Your task to perform on an android device: What is the recent news? Image 0: 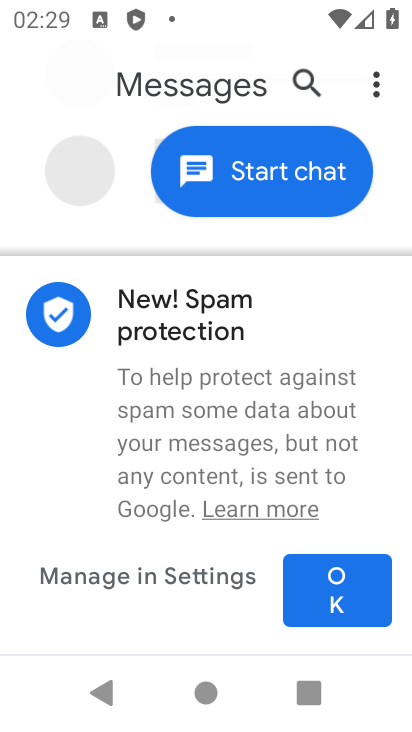
Step 0: press home button
Your task to perform on an android device: What is the recent news? Image 1: 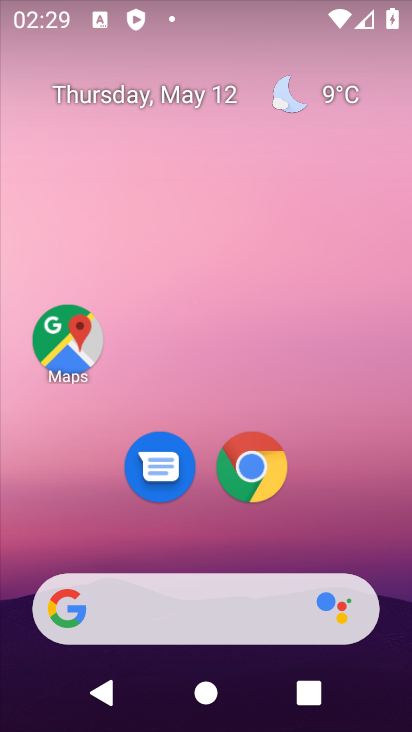
Step 1: drag from (359, 328) to (356, 243)
Your task to perform on an android device: What is the recent news? Image 2: 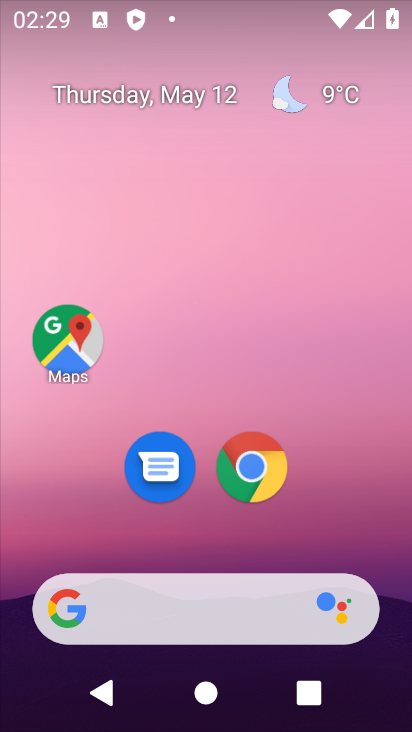
Step 2: drag from (295, 513) to (327, 191)
Your task to perform on an android device: What is the recent news? Image 3: 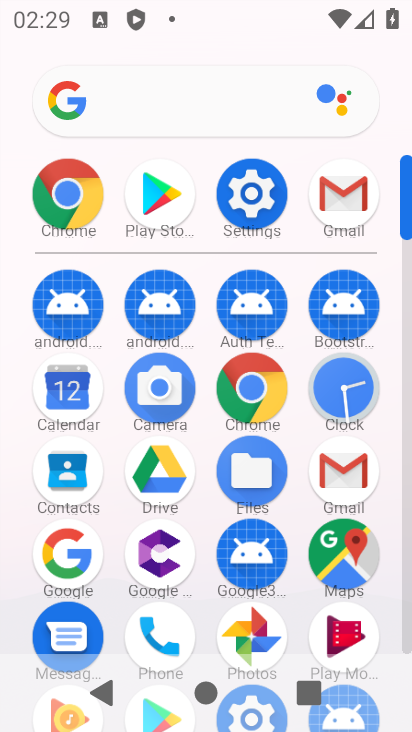
Step 3: click (91, 191)
Your task to perform on an android device: What is the recent news? Image 4: 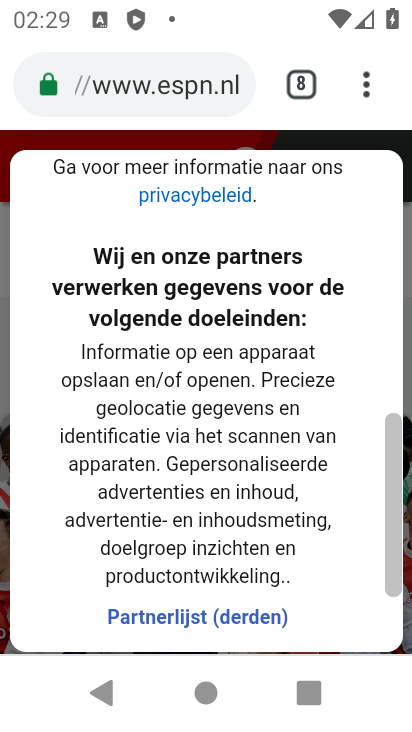
Step 4: click (351, 82)
Your task to perform on an android device: What is the recent news? Image 5: 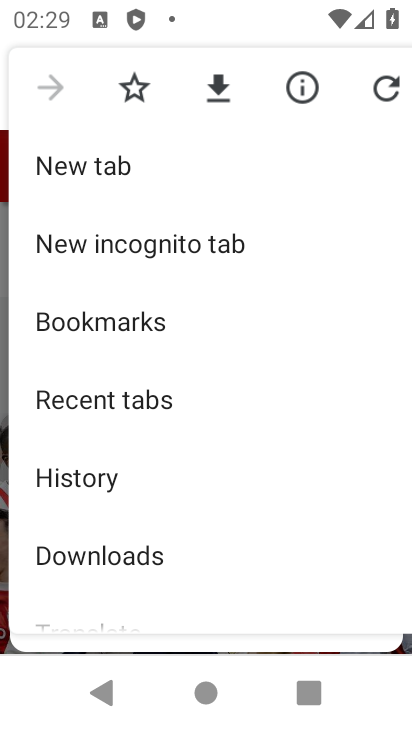
Step 5: click (99, 163)
Your task to perform on an android device: What is the recent news? Image 6: 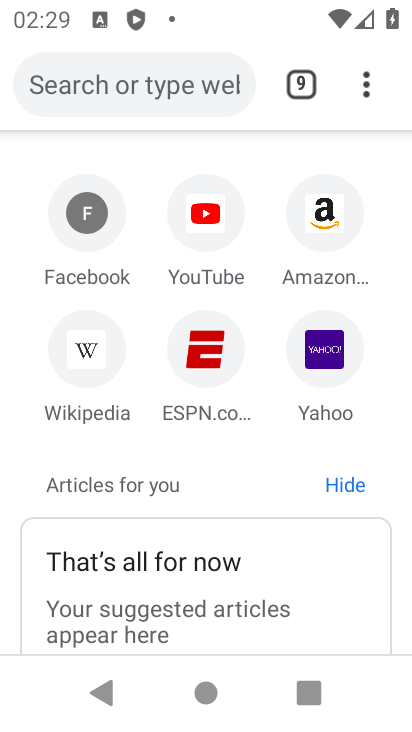
Step 6: click (133, 85)
Your task to perform on an android device: What is the recent news? Image 7: 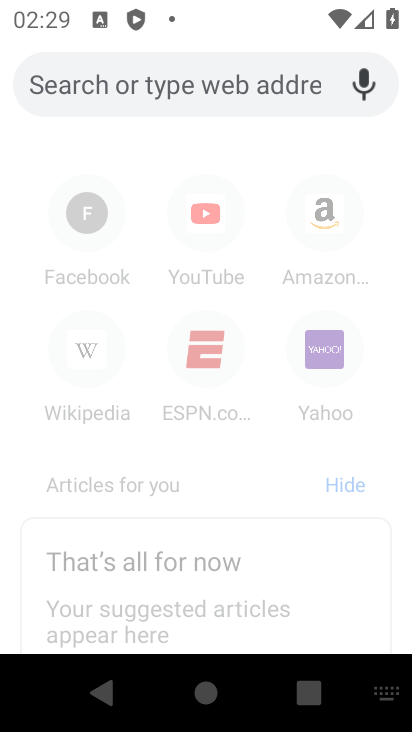
Step 7: type "What is the recent news?"
Your task to perform on an android device: What is the recent news? Image 8: 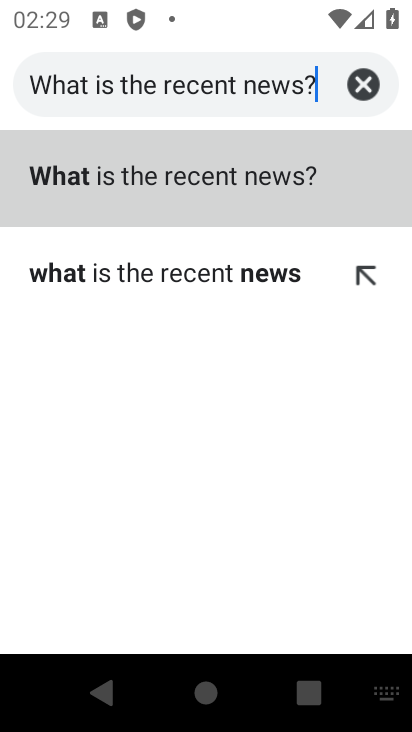
Step 8: click (201, 184)
Your task to perform on an android device: What is the recent news? Image 9: 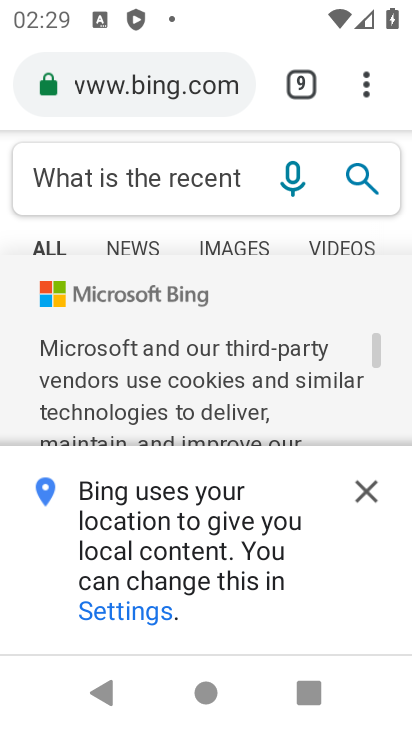
Step 9: click (353, 492)
Your task to perform on an android device: What is the recent news? Image 10: 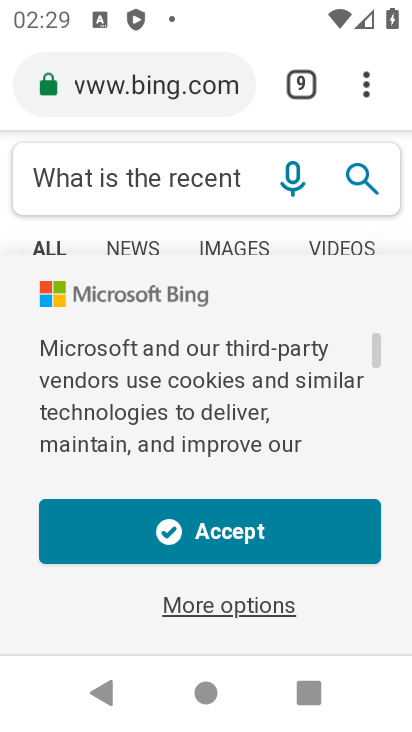
Step 10: click (268, 525)
Your task to perform on an android device: What is the recent news? Image 11: 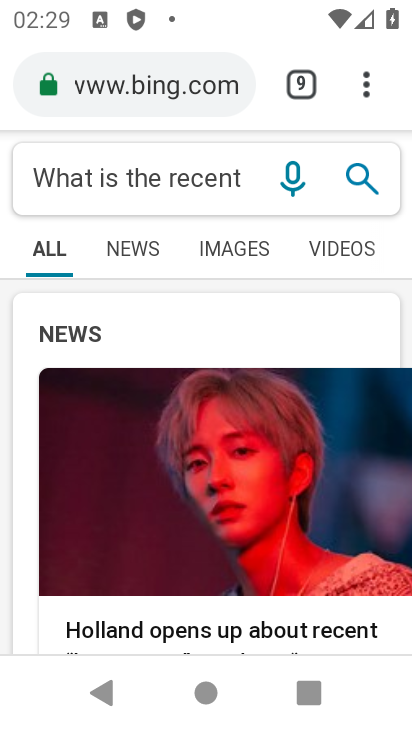
Step 11: task complete